Your task to perform on an android device: Go to location settings Image 0: 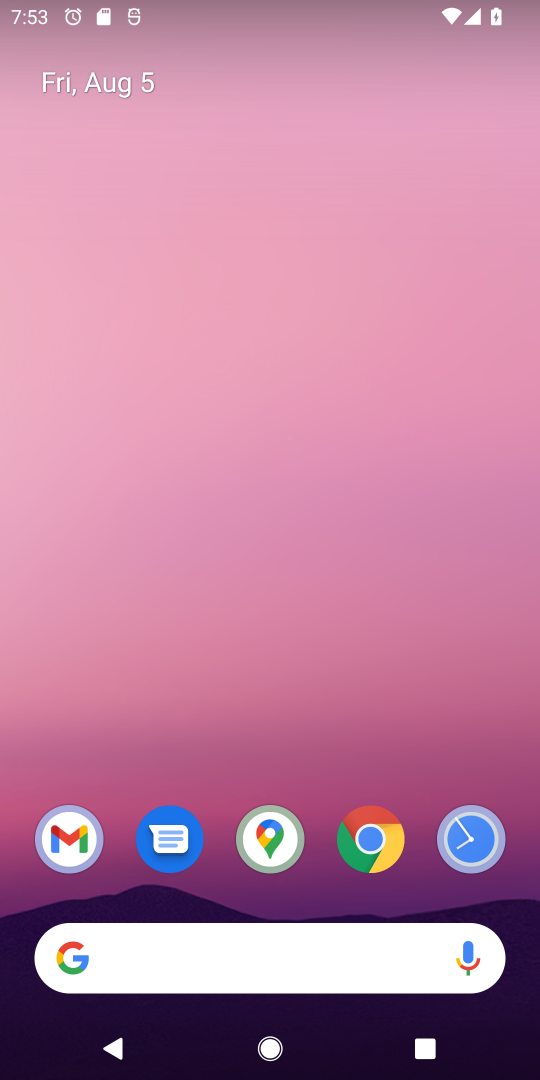
Step 0: drag from (313, 708) to (313, 224)
Your task to perform on an android device: Go to location settings Image 1: 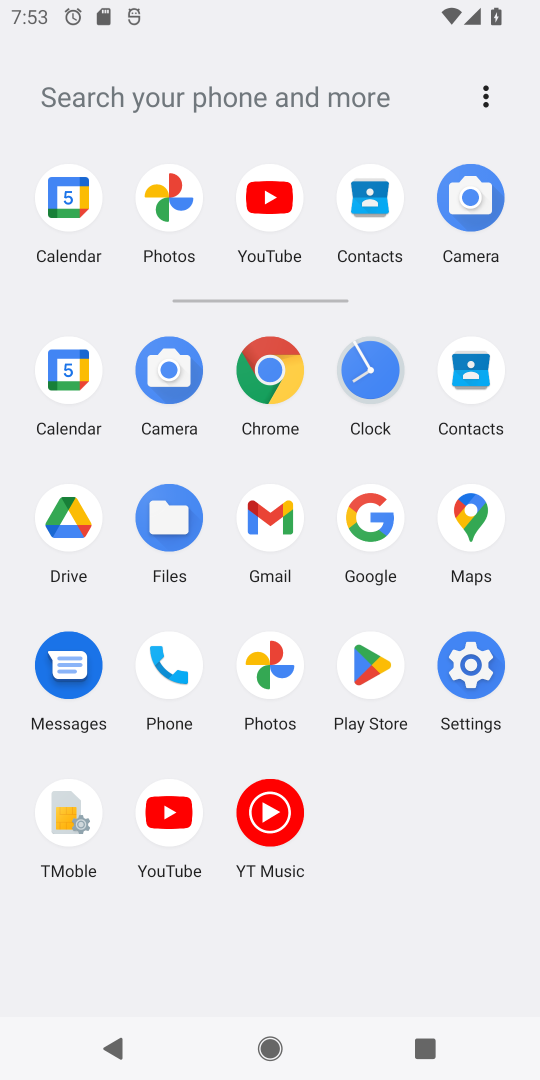
Step 1: click (458, 682)
Your task to perform on an android device: Go to location settings Image 2: 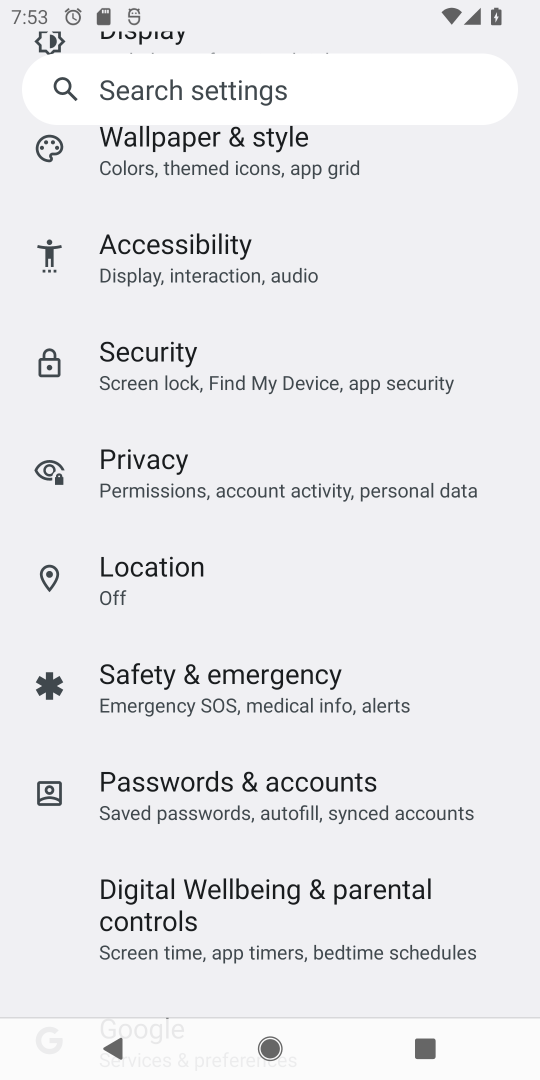
Step 2: click (195, 584)
Your task to perform on an android device: Go to location settings Image 3: 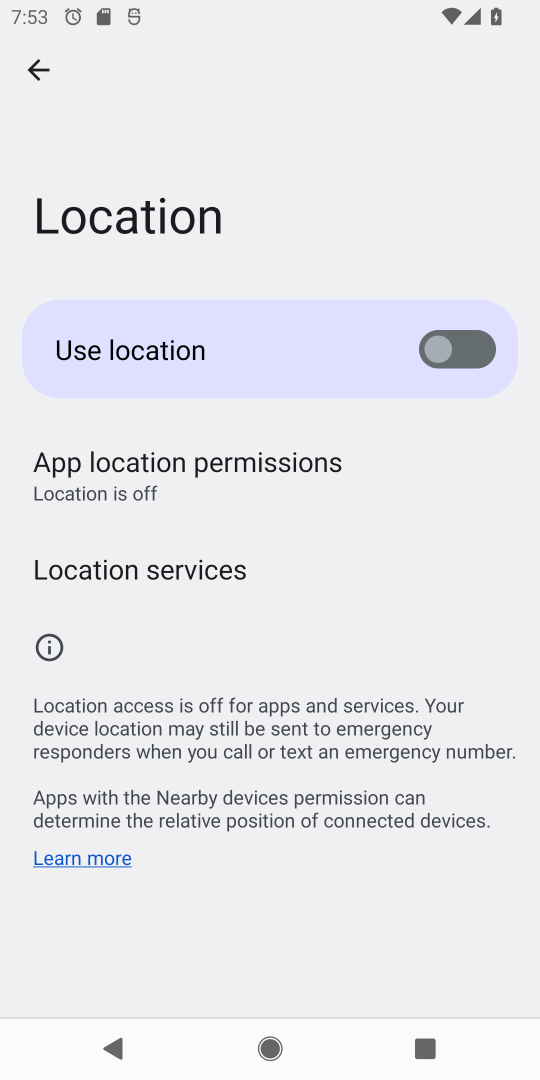
Step 3: task complete